Your task to perform on an android device: Search for "bose quietcomfort 35" on bestbuy.com, select the first entry, add it to the cart, then select checkout. Image 0: 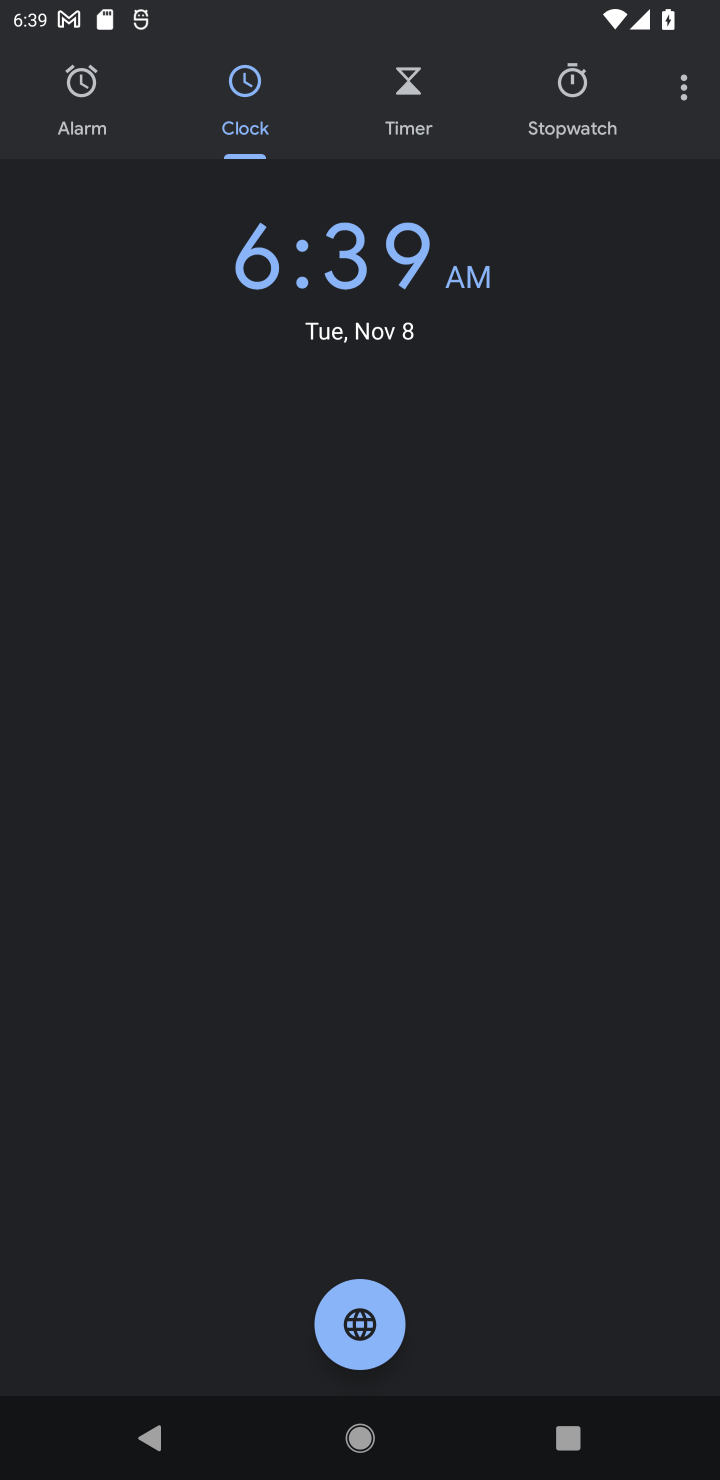
Step 0: press home button
Your task to perform on an android device: Search for "bose quietcomfort 35" on bestbuy.com, select the first entry, add it to the cart, then select checkout. Image 1: 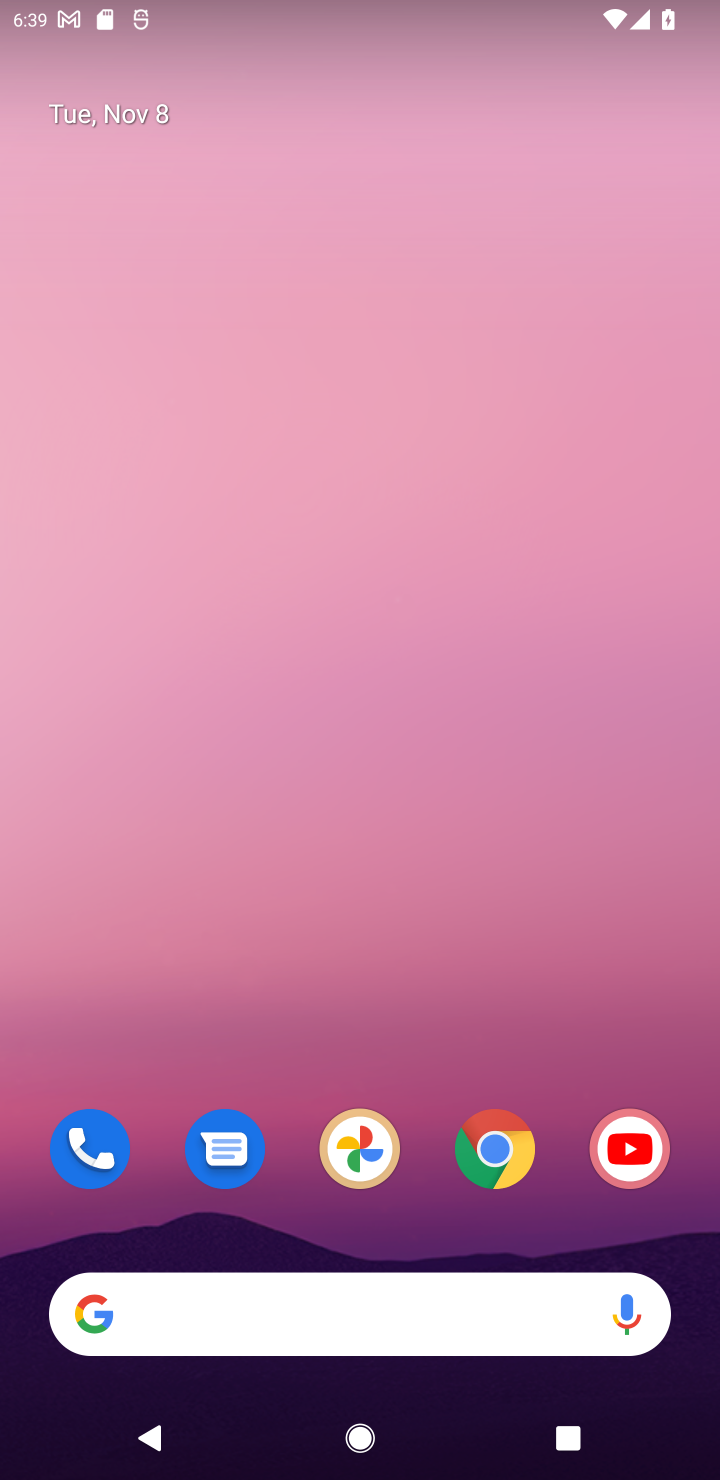
Step 1: click (493, 1155)
Your task to perform on an android device: Search for "bose quietcomfort 35" on bestbuy.com, select the first entry, add it to the cart, then select checkout. Image 2: 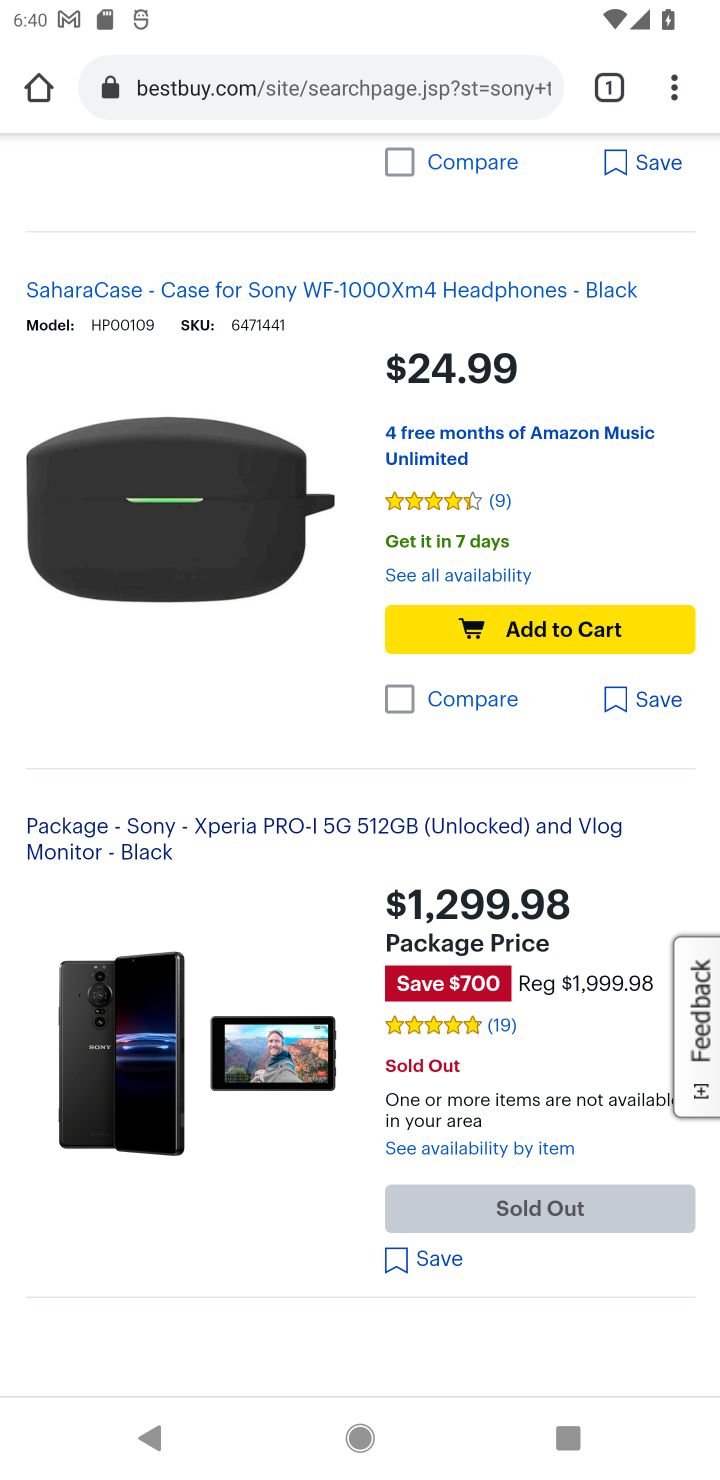
Step 2: drag from (305, 233) to (293, 1241)
Your task to perform on an android device: Search for "bose quietcomfort 35" on bestbuy.com, select the first entry, add it to the cart, then select checkout. Image 3: 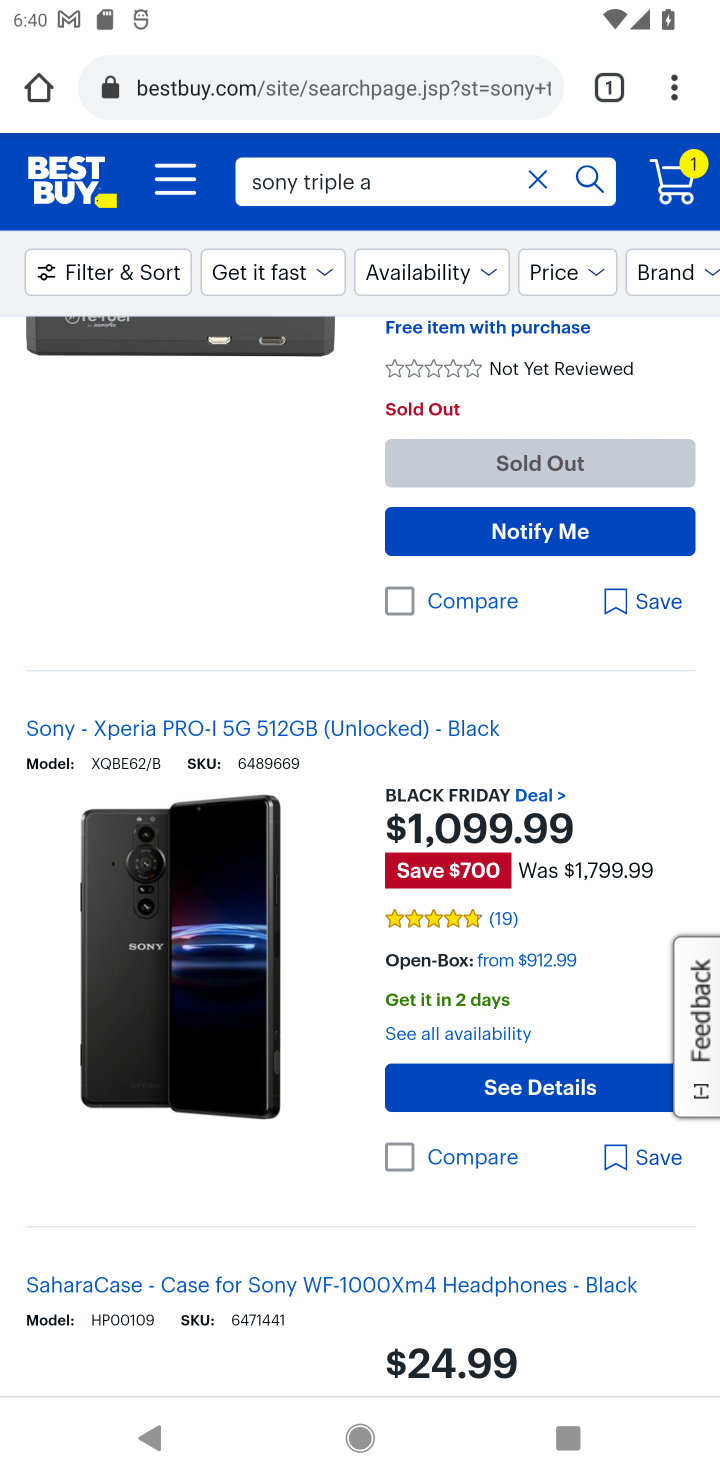
Step 3: click (535, 181)
Your task to perform on an android device: Search for "bose quietcomfort 35" on bestbuy.com, select the first entry, add it to the cart, then select checkout. Image 4: 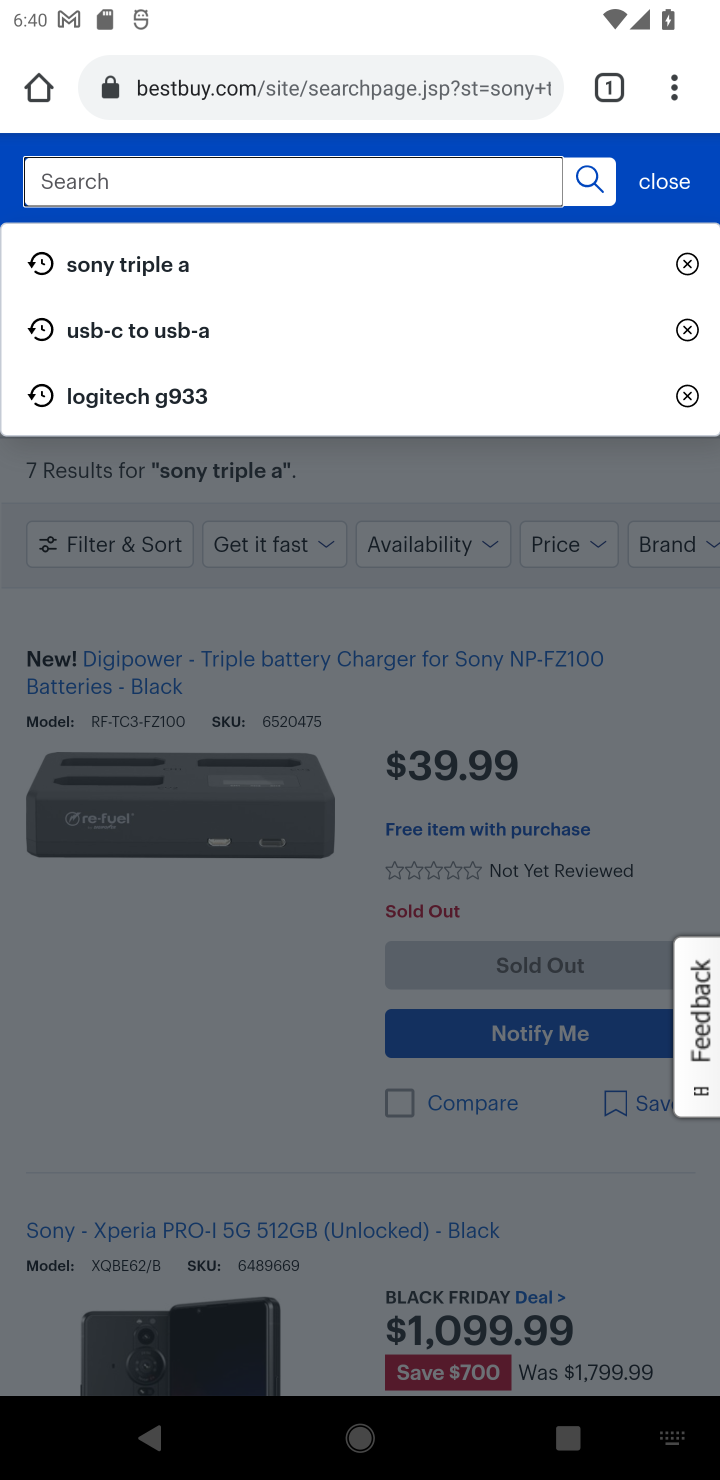
Step 4: type "bose quietcomfort 35"
Your task to perform on an android device: Search for "bose quietcomfort 35" on bestbuy.com, select the first entry, add it to the cart, then select checkout. Image 5: 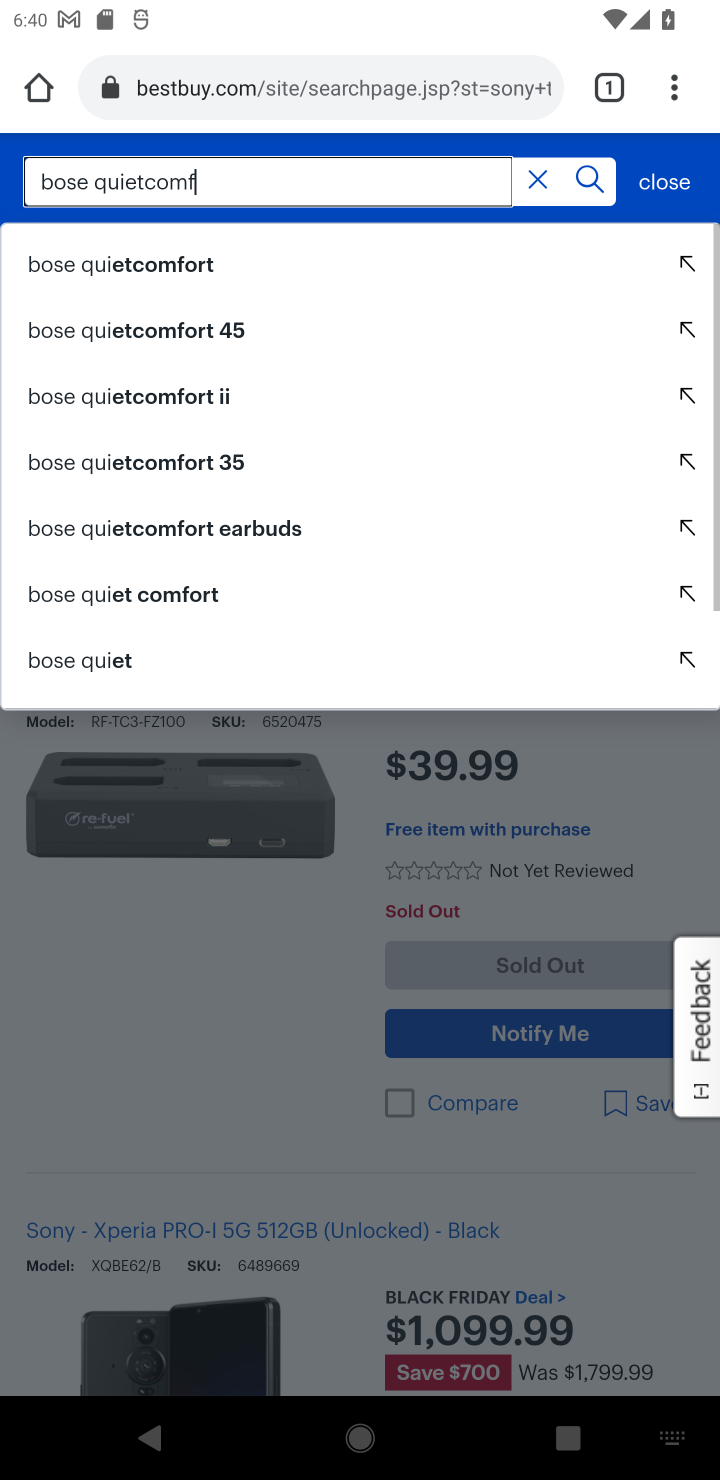
Step 5: press enter
Your task to perform on an android device: Search for "bose quietcomfort 35" on bestbuy.com, select the first entry, add it to the cart, then select checkout. Image 6: 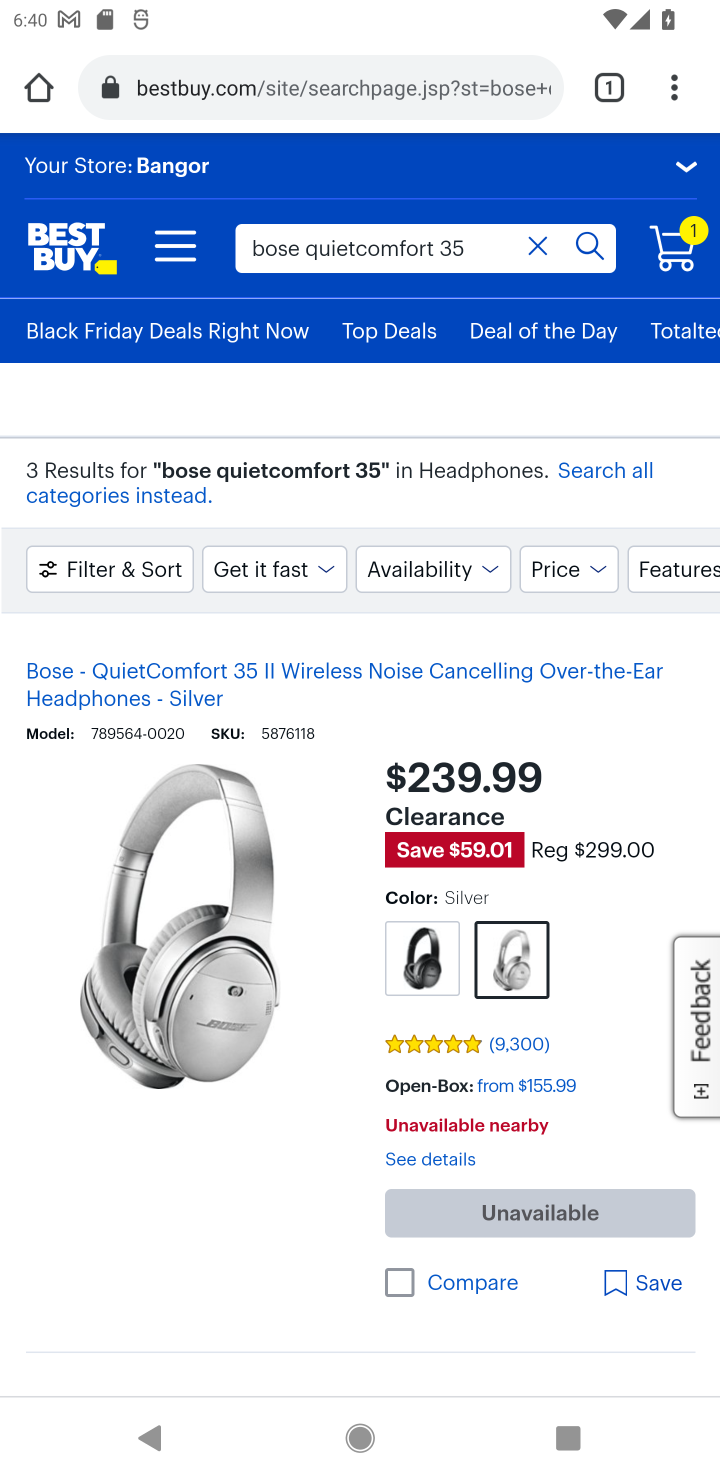
Step 6: click (139, 983)
Your task to perform on an android device: Search for "bose quietcomfort 35" on bestbuy.com, select the first entry, add it to the cart, then select checkout. Image 7: 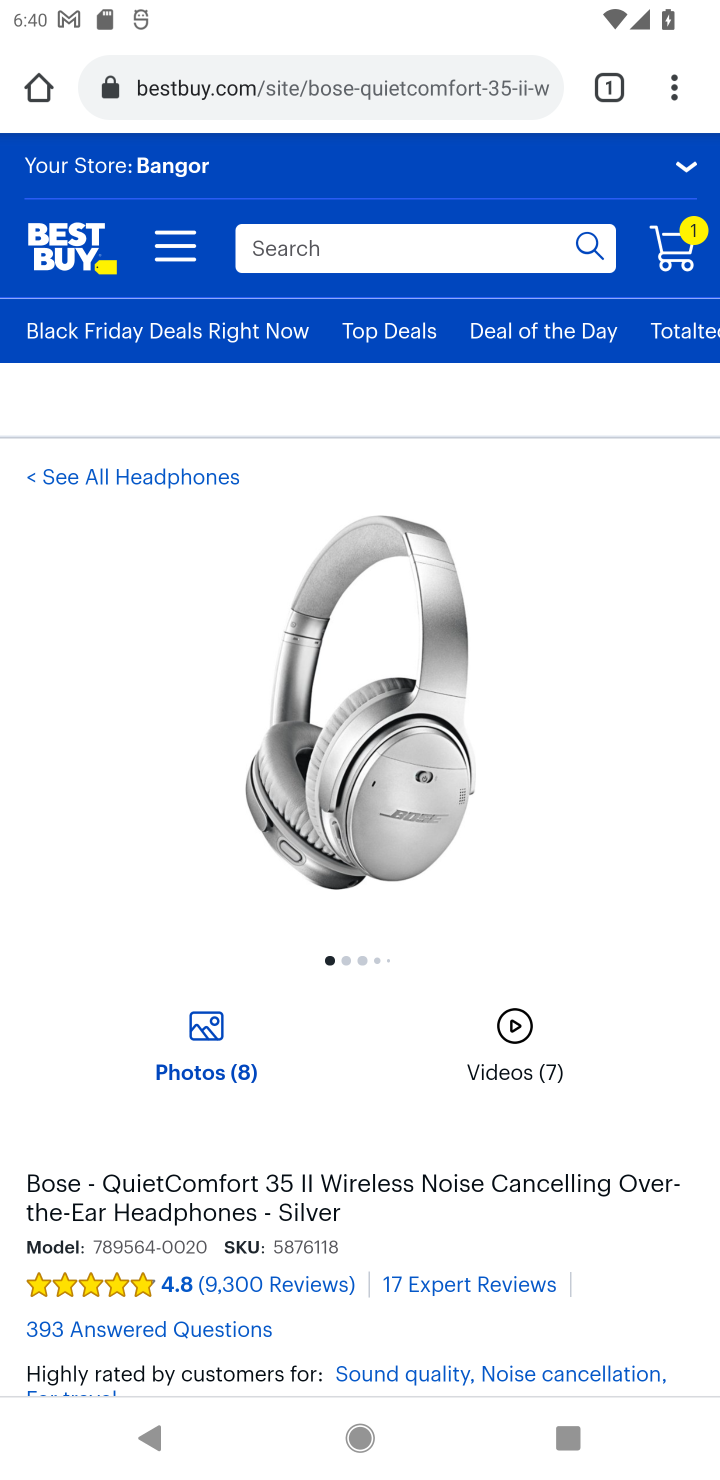
Step 7: drag from (374, 1093) to (313, 512)
Your task to perform on an android device: Search for "bose quietcomfort 35" on bestbuy.com, select the first entry, add it to the cart, then select checkout. Image 8: 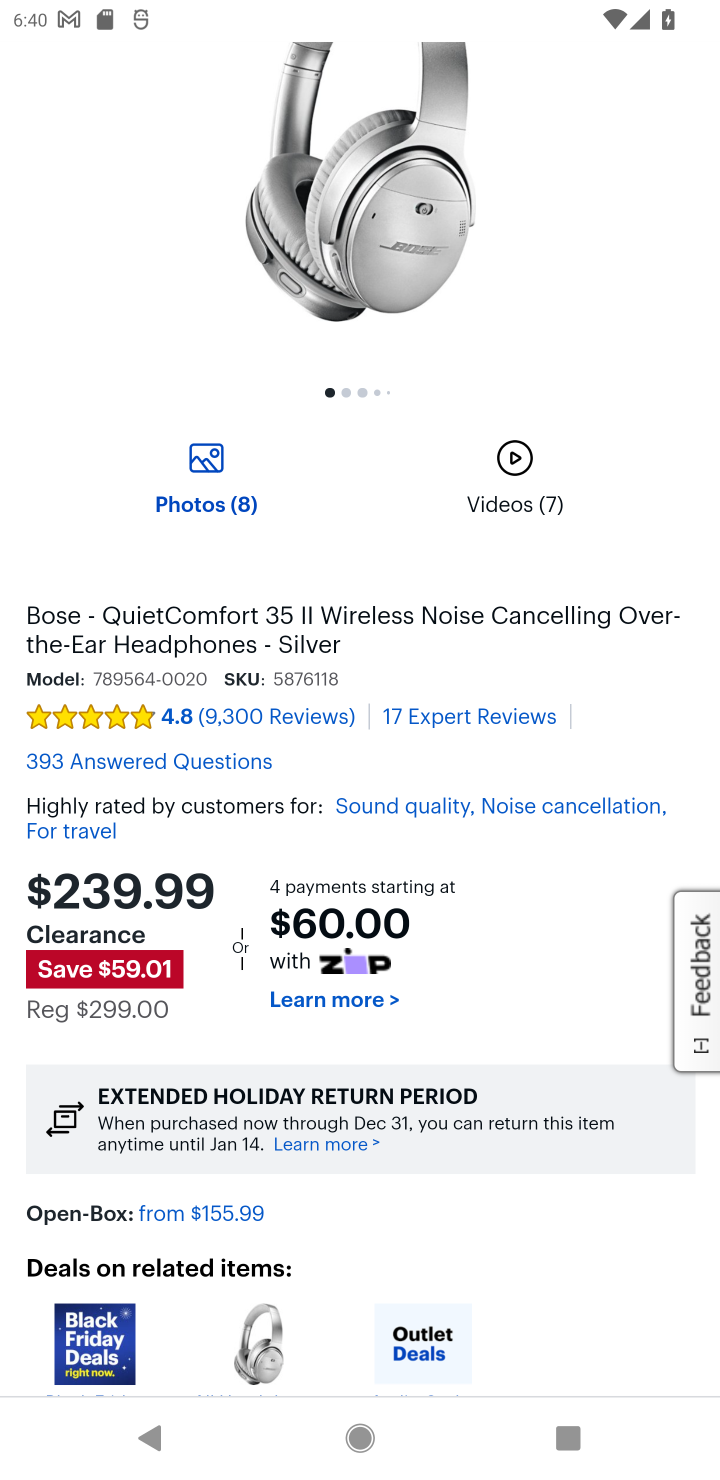
Step 8: drag from (520, 686) to (530, 384)
Your task to perform on an android device: Search for "bose quietcomfort 35" on bestbuy.com, select the first entry, add it to the cart, then select checkout. Image 9: 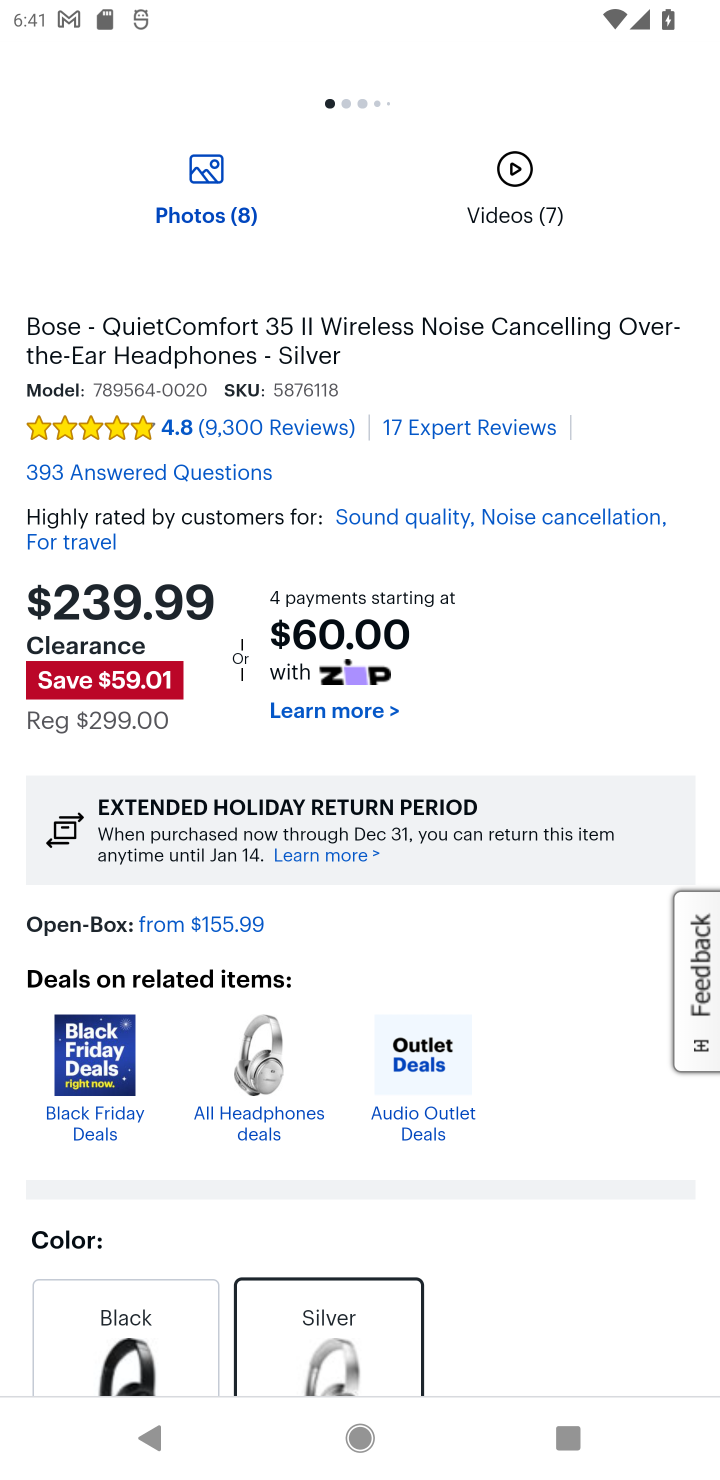
Step 9: drag from (540, 1191) to (509, 629)
Your task to perform on an android device: Search for "bose quietcomfort 35" on bestbuy.com, select the first entry, add it to the cart, then select checkout. Image 10: 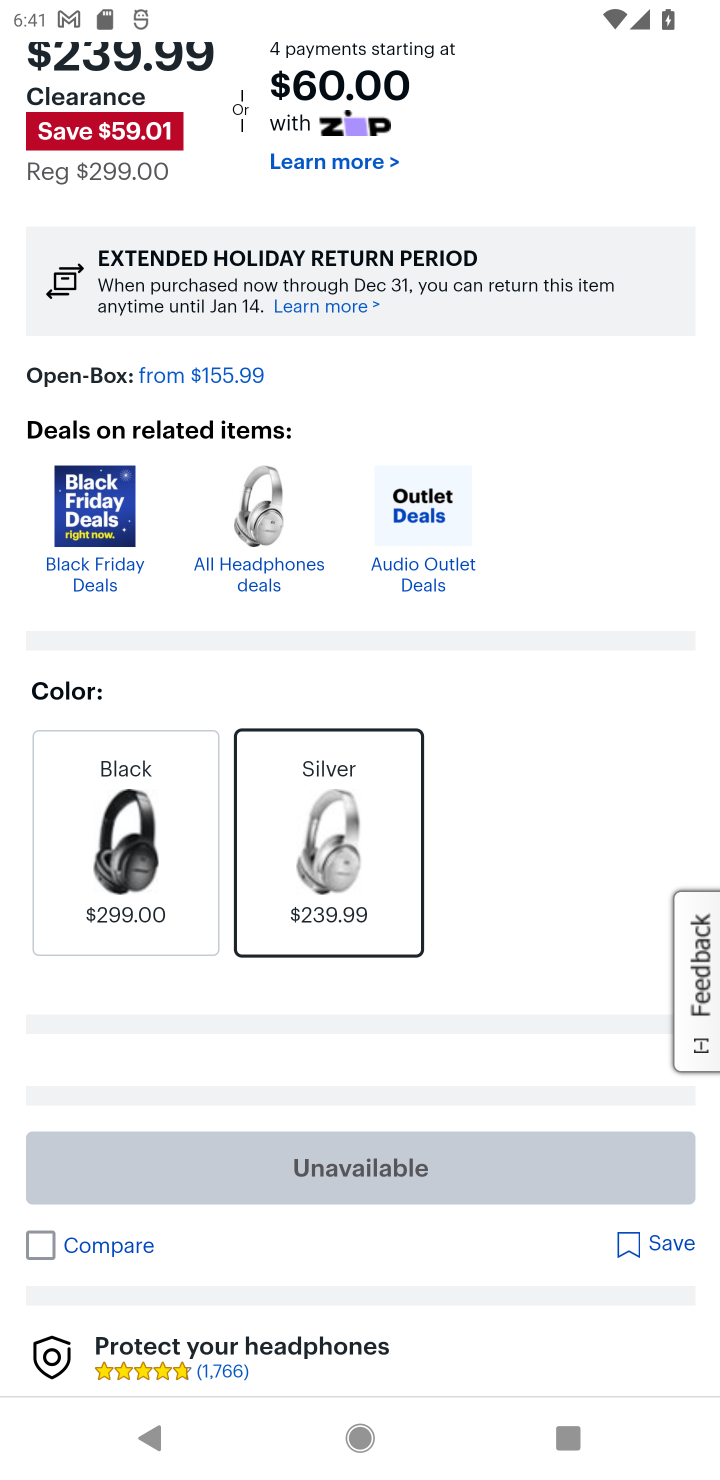
Step 10: press back button
Your task to perform on an android device: Search for "bose quietcomfort 35" on bestbuy.com, select the first entry, add it to the cart, then select checkout. Image 11: 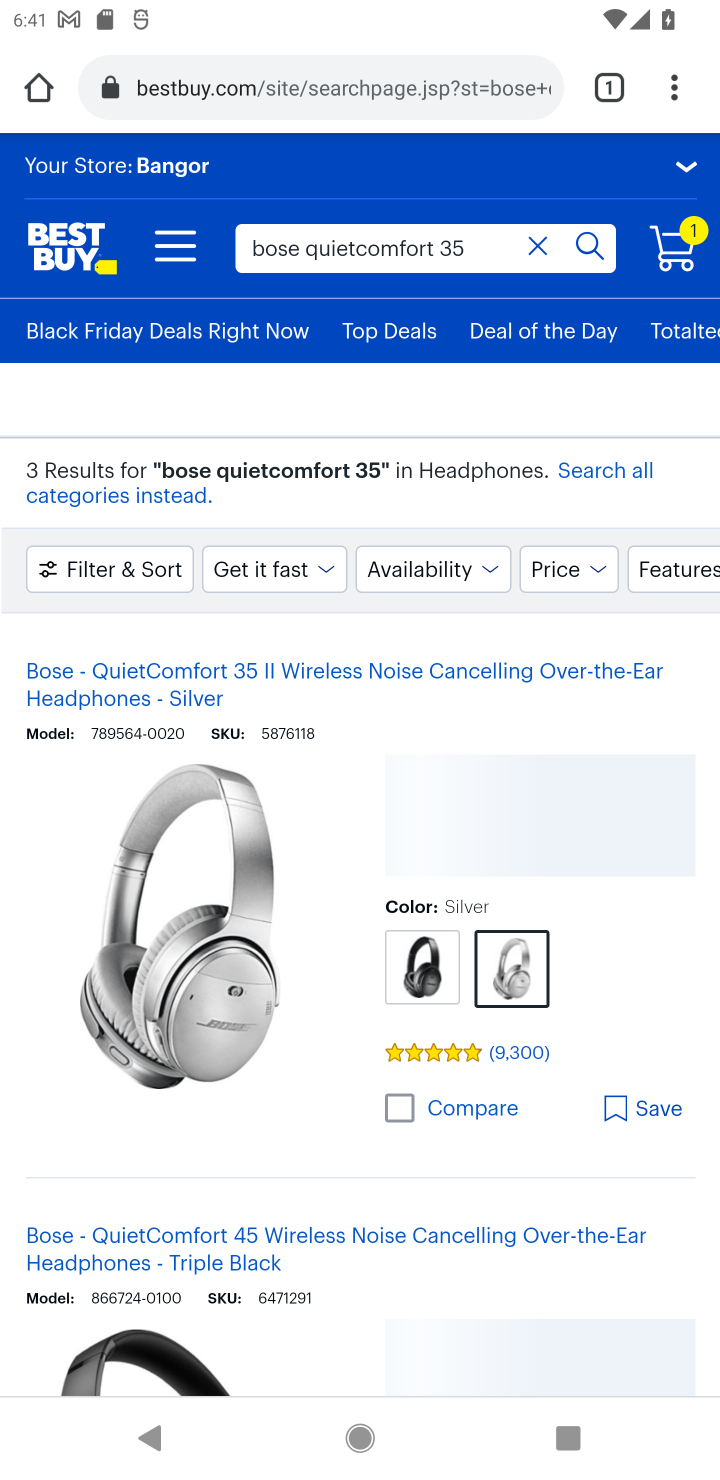
Step 11: drag from (344, 1071) to (345, 305)
Your task to perform on an android device: Search for "bose quietcomfort 35" on bestbuy.com, select the first entry, add it to the cart, then select checkout. Image 12: 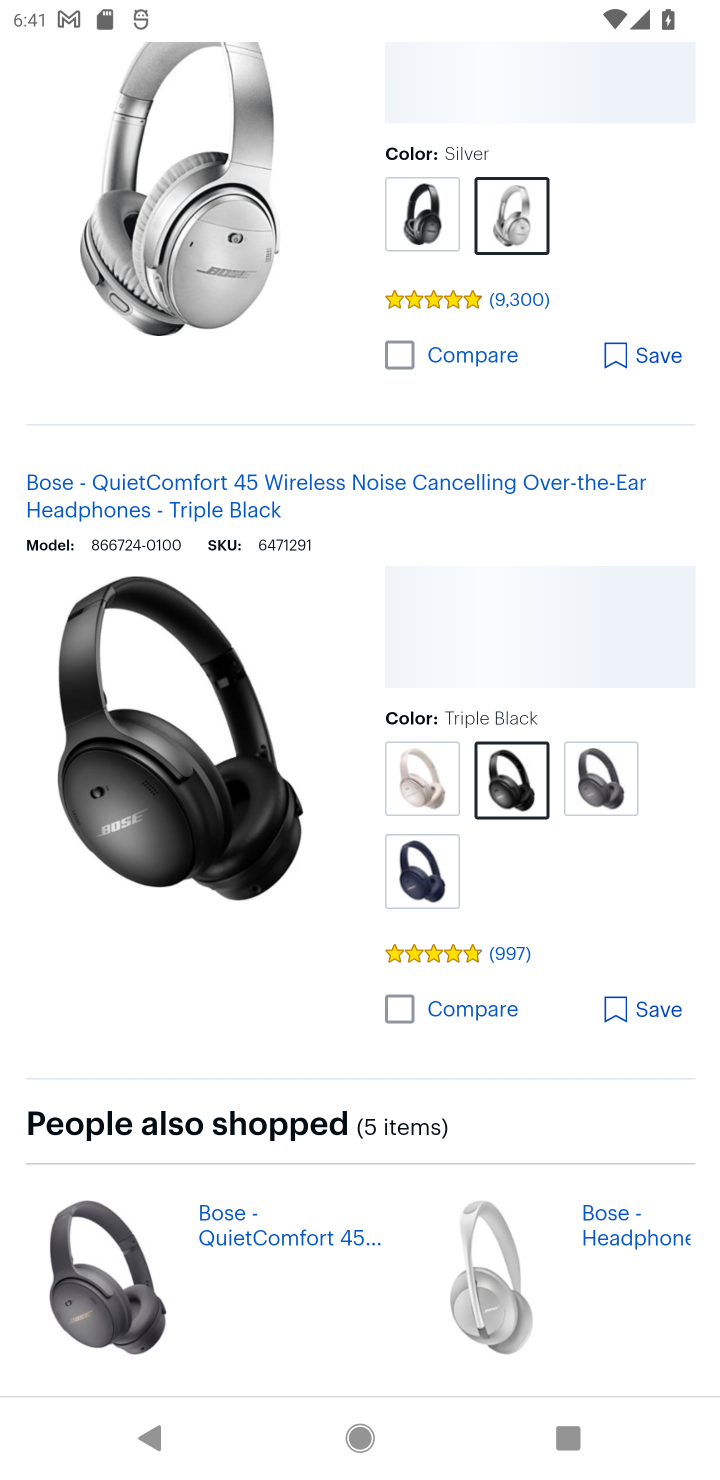
Step 12: drag from (349, 1029) to (441, 290)
Your task to perform on an android device: Search for "bose quietcomfort 35" on bestbuy.com, select the first entry, add it to the cart, then select checkout. Image 13: 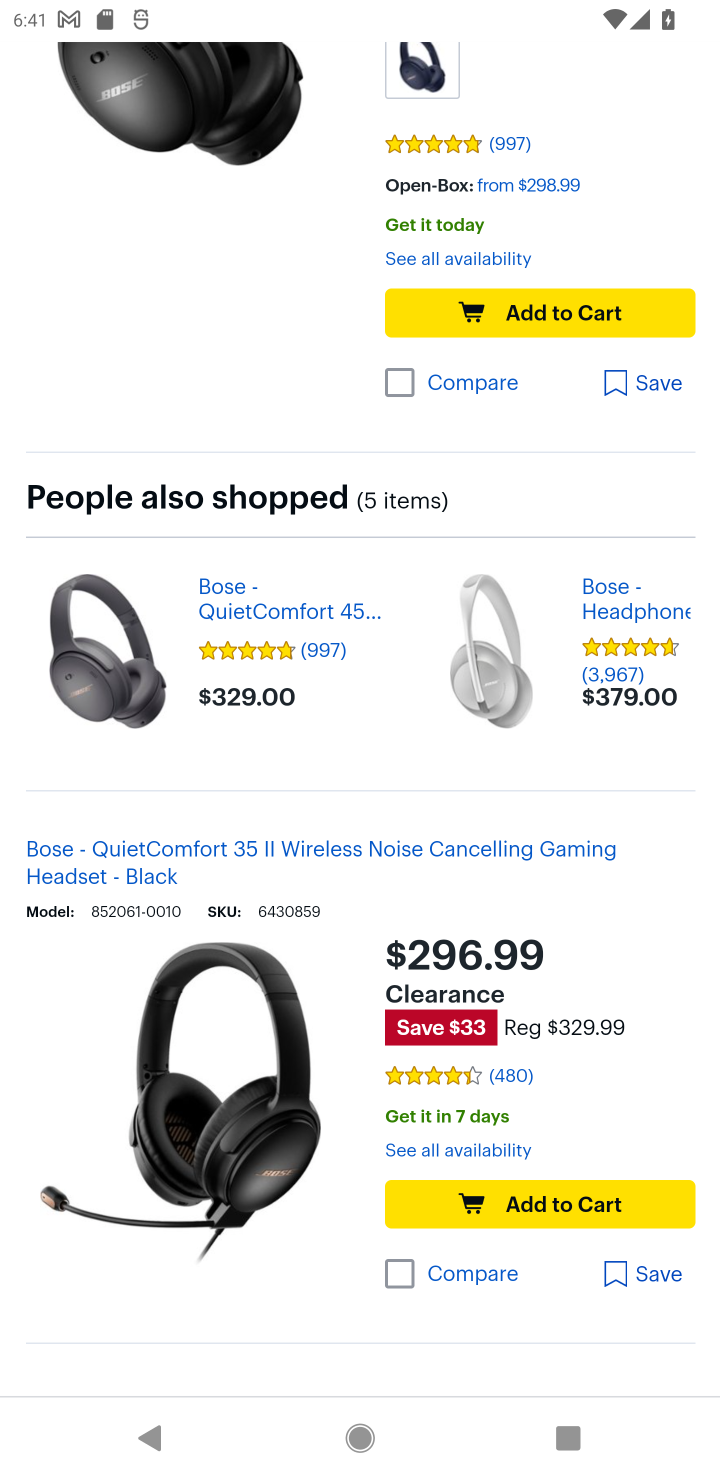
Step 13: click (179, 1023)
Your task to perform on an android device: Search for "bose quietcomfort 35" on bestbuy.com, select the first entry, add it to the cart, then select checkout. Image 14: 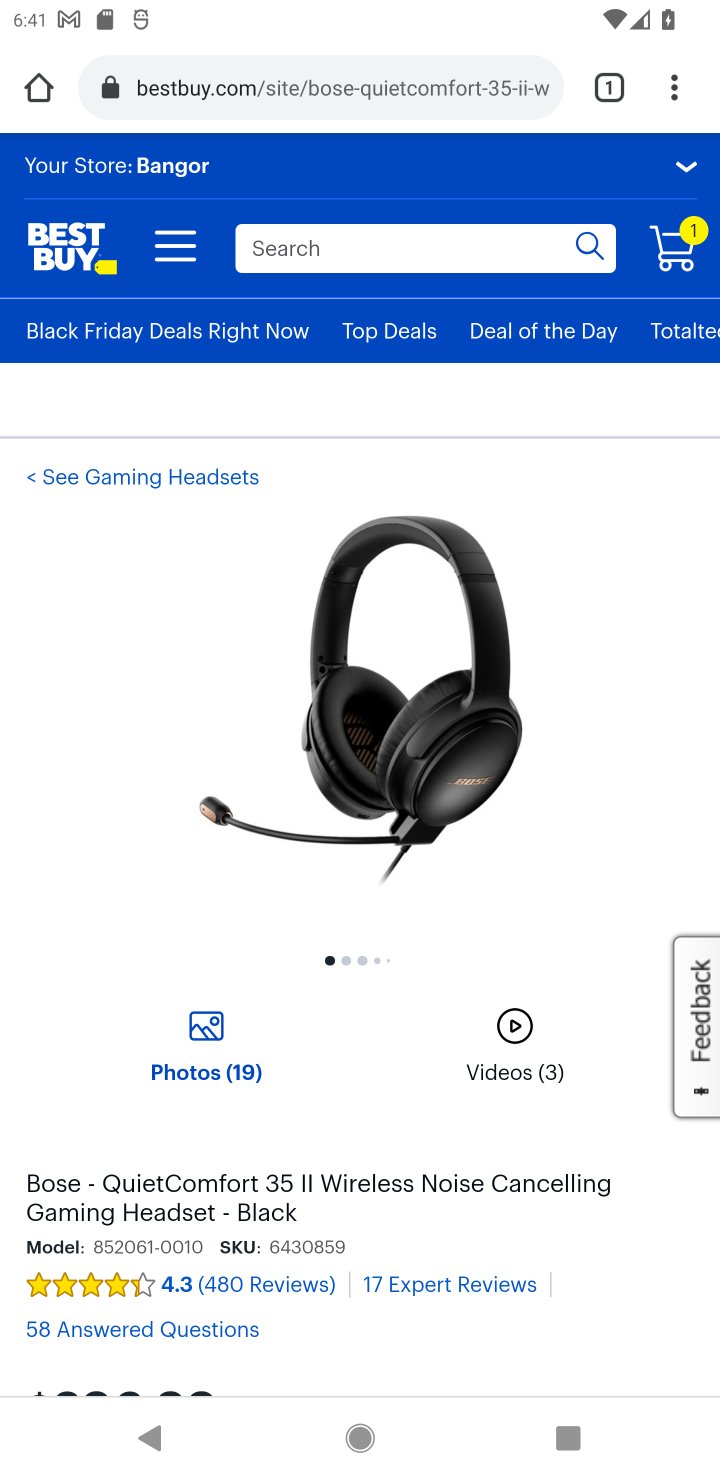
Step 14: drag from (565, 1217) to (446, 580)
Your task to perform on an android device: Search for "bose quietcomfort 35" on bestbuy.com, select the first entry, add it to the cart, then select checkout. Image 15: 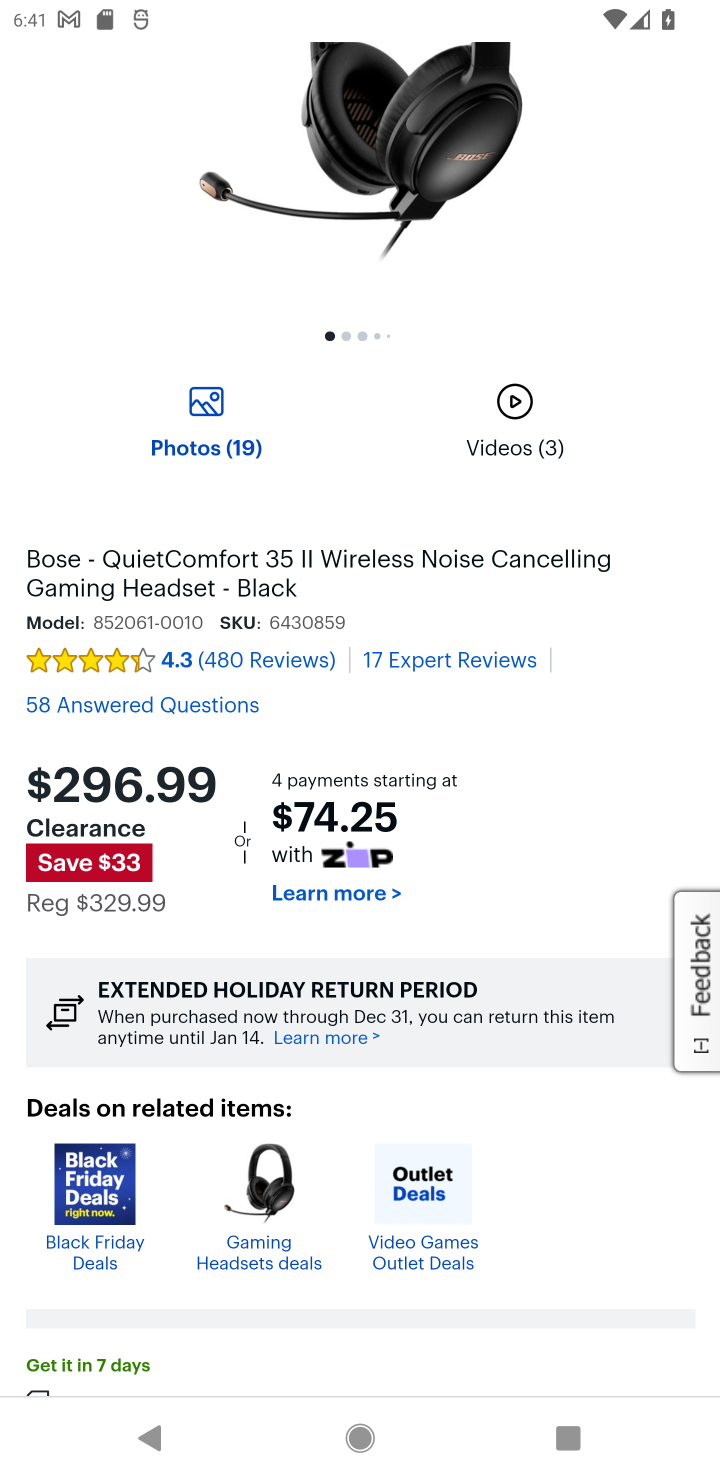
Step 15: drag from (612, 973) to (557, 538)
Your task to perform on an android device: Search for "bose quietcomfort 35" on bestbuy.com, select the first entry, add it to the cart, then select checkout. Image 16: 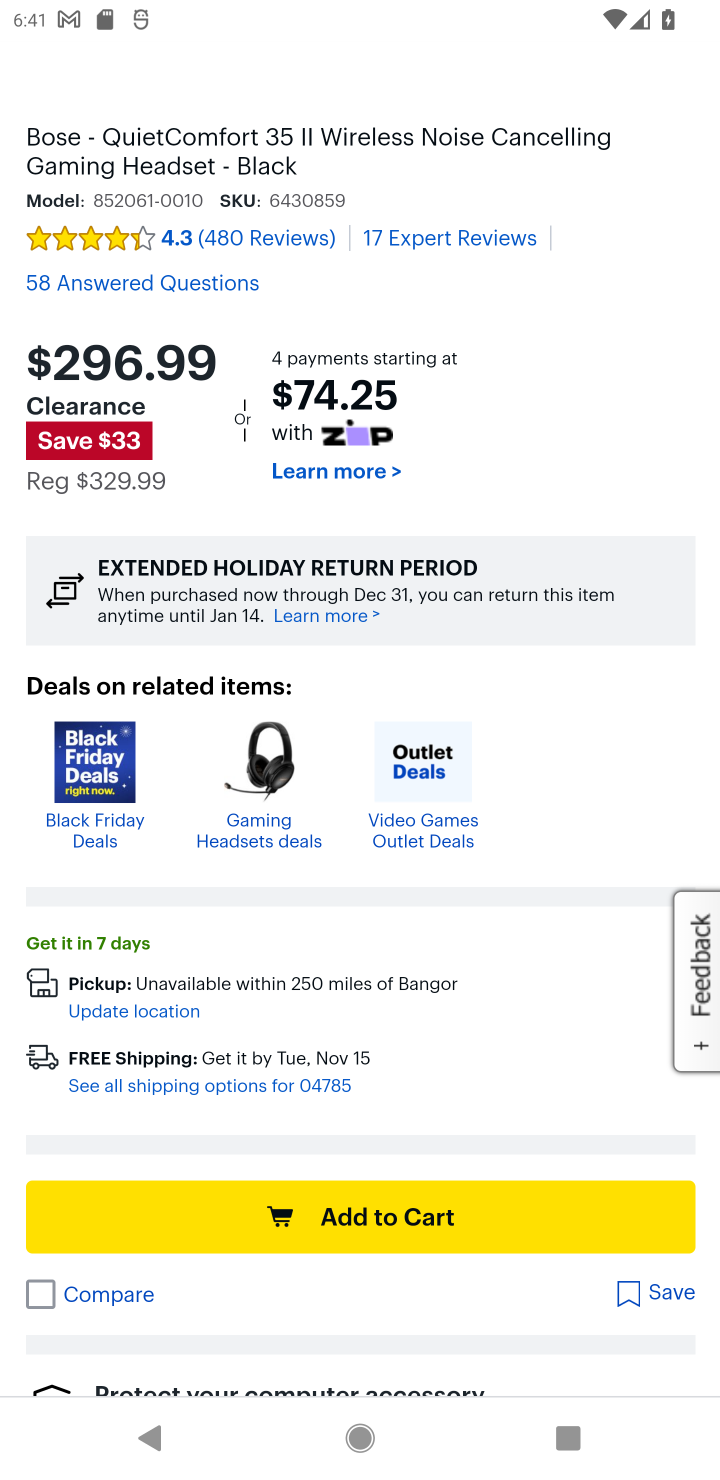
Step 16: click (441, 1209)
Your task to perform on an android device: Search for "bose quietcomfort 35" on bestbuy.com, select the first entry, add it to the cart, then select checkout. Image 17: 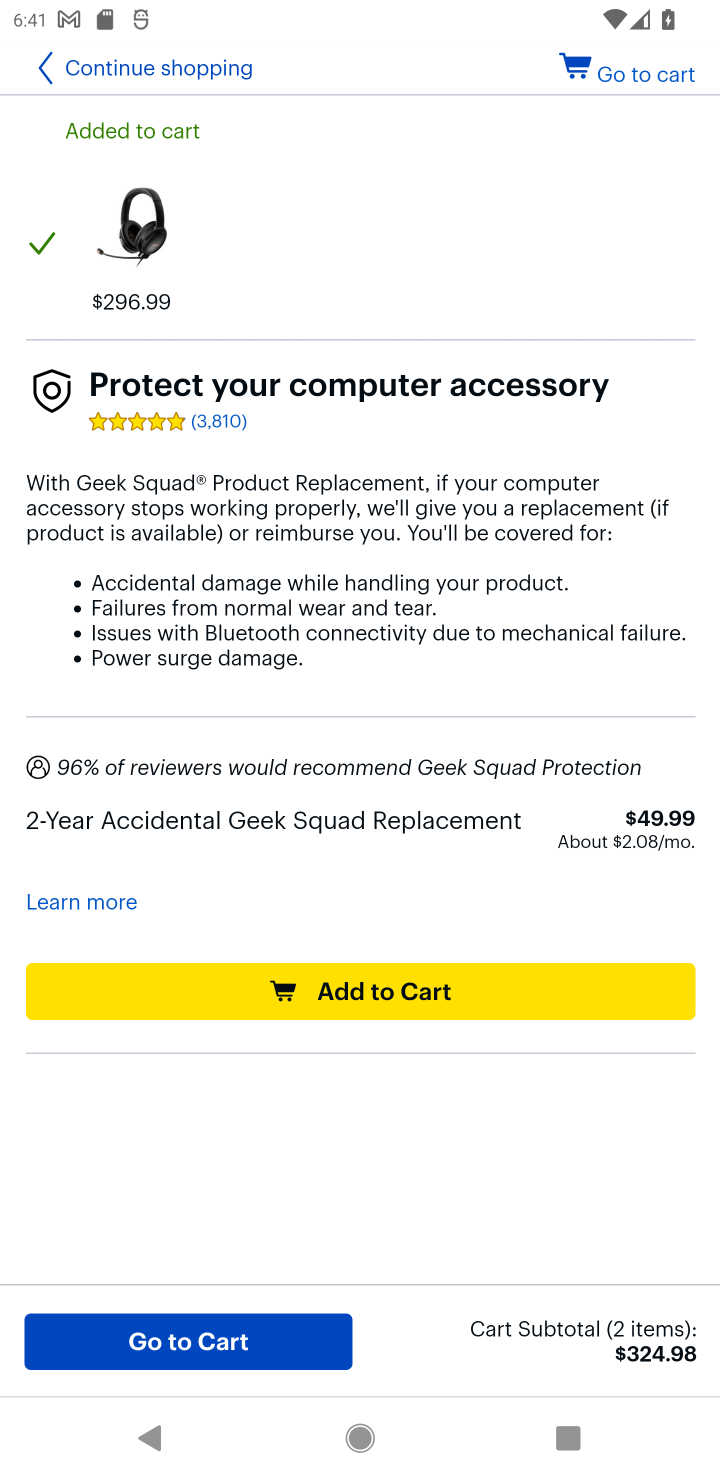
Step 17: click (202, 1341)
Your task to perform on an android device: Search for "bose quietcomfort 35" on bestbuy.com, select the first entry, add it to the cart, then select checkout. Image 18: 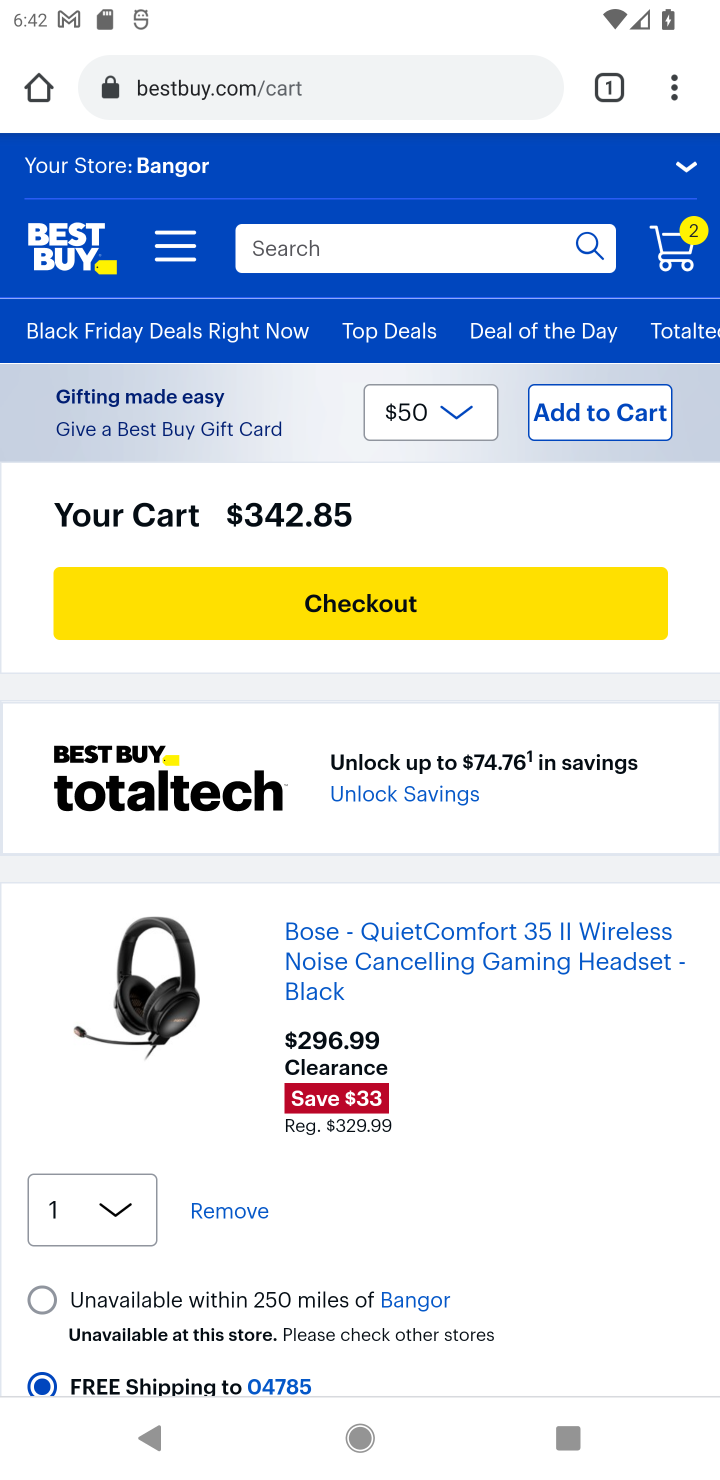
Step 18: click (394, 605)
Your task to perform on an android device: Search for "bose quietcomfort 35" on bestbuy.com, select the first entry, add it to the cart, then select checkout. Image 19: 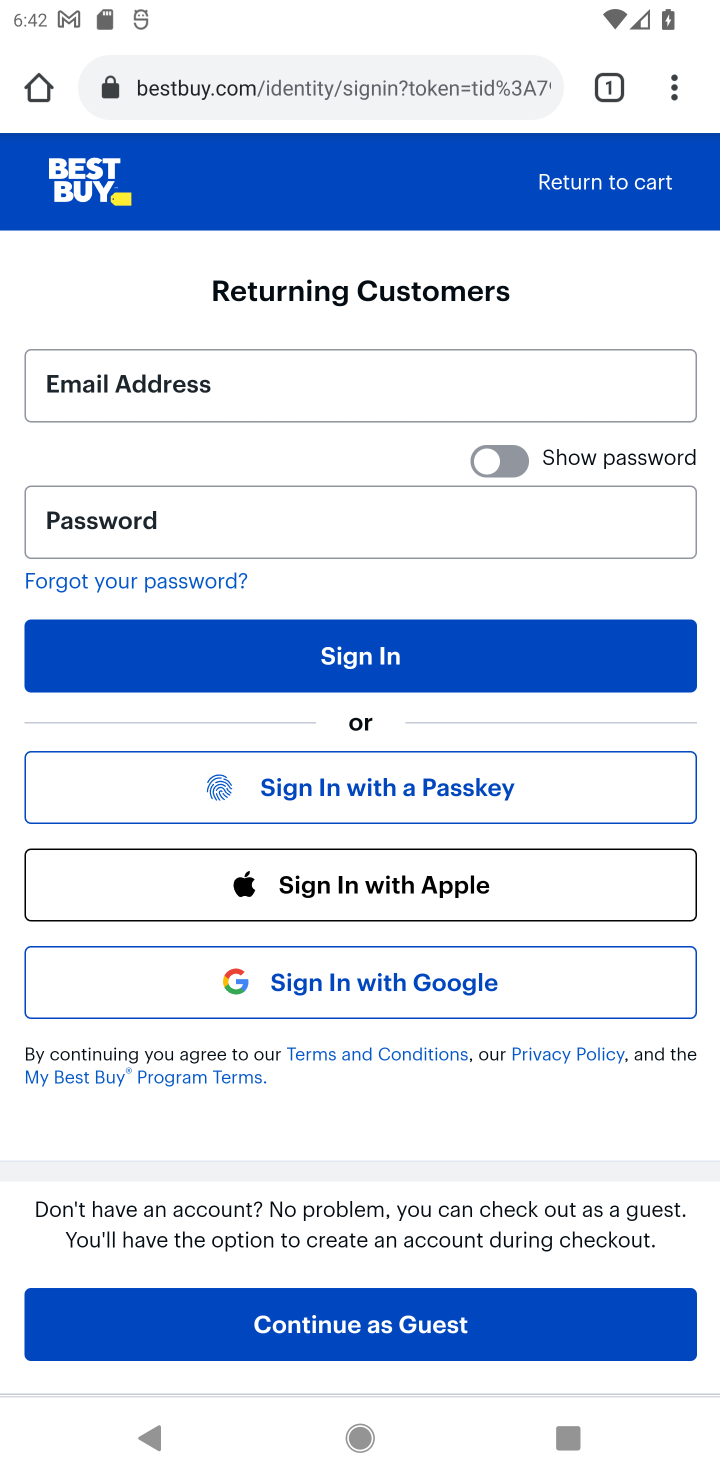
Step 19: task complete